Your task to perform on an android device: move an email to a new category in the gmail app Image 0: 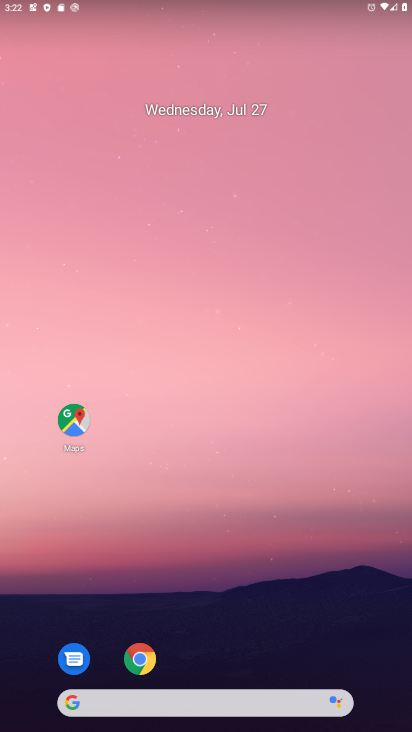
Step 0: drag from (258, 651) to (233, 81)
Your task to perform on an android device: move an email to a new category in the gmail app Image 1: 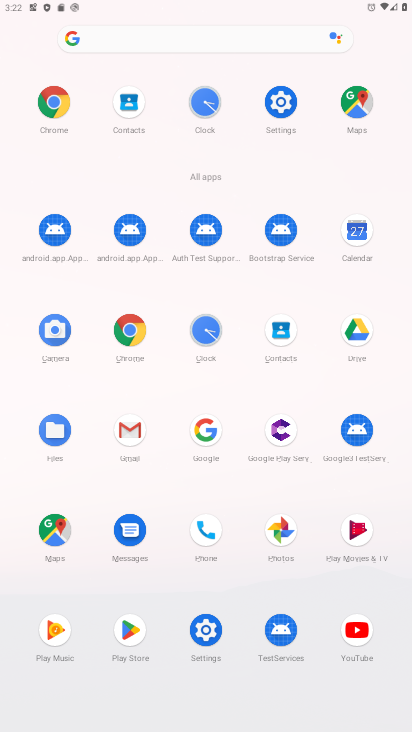
Step 1: click (133, 441)
Your task to perform on an android device: move an email to a new category in the gmail app Image 2: 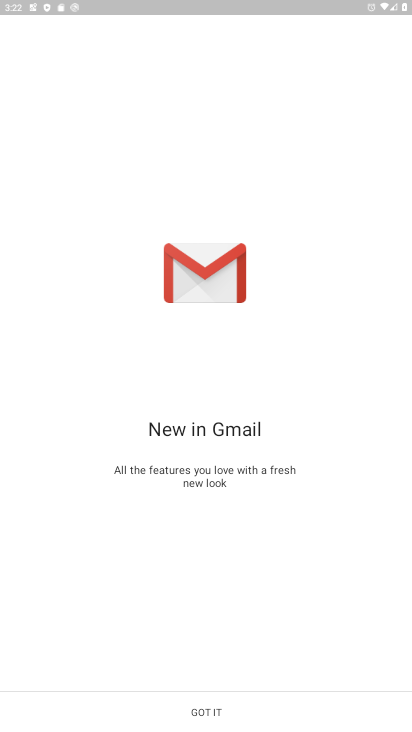
Step 2: click (251, 707)
Your task to perform on an android device: move an email to a new category in the gmail app Image 3: 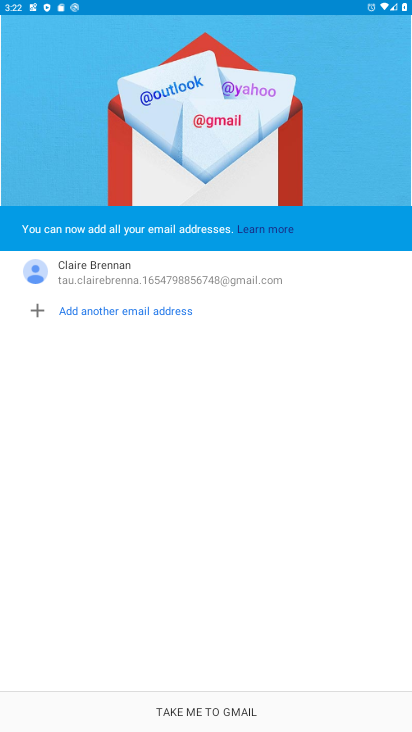
Step 3: click (193, 716)
Your task to perform on an android device: move an email to a new category in the gmail app Image 4: 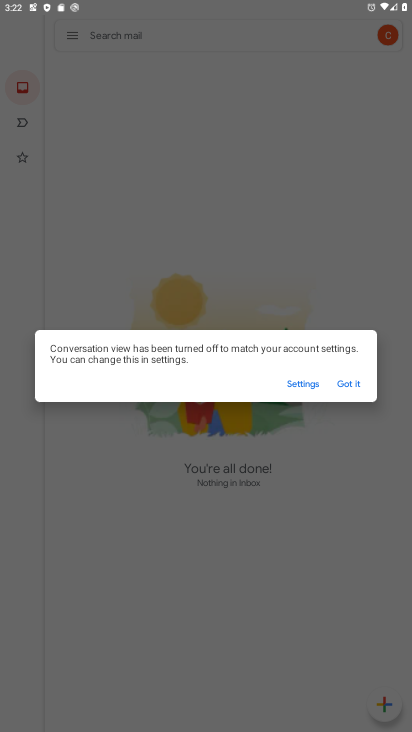
Step 4: click (355, 389)
Your task to perform on an android device: move an email to a new category in the gmail app Image 5: 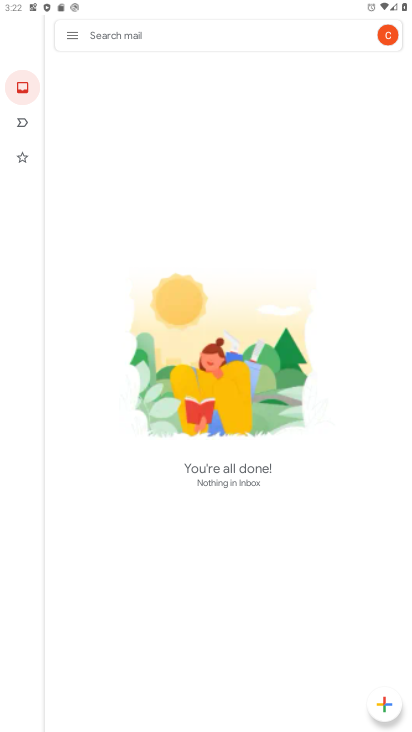
Step 5: click (69, 35)
Your task to perform on an android device: move an email to a new category in the gmail app Image 6: 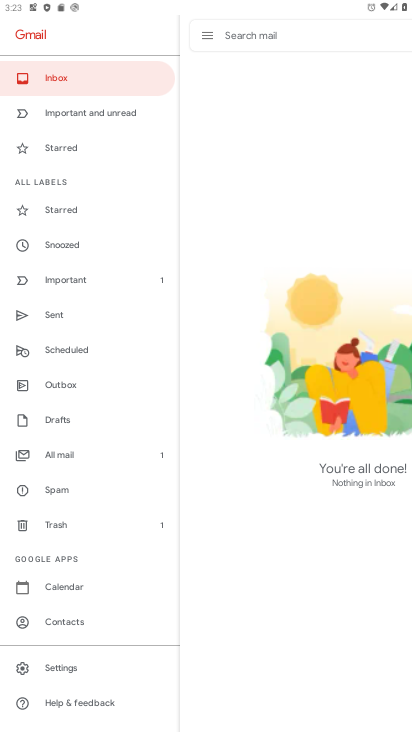
Step 6: task complete